Your task to perform on an android device: turn pop-ups on in chrome Image 0: 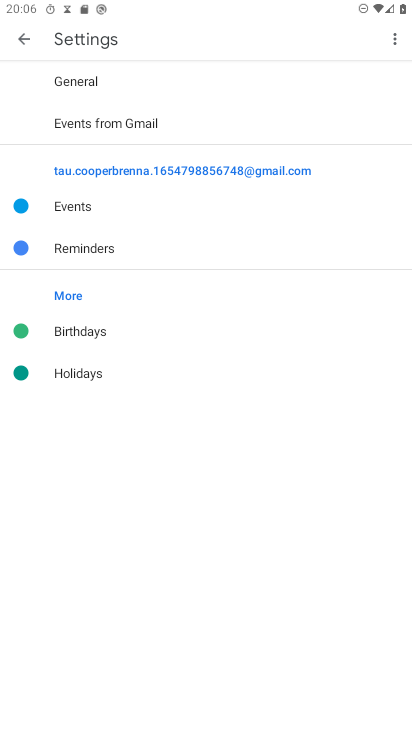
Step 0: press home button
Your task to perform on an android device: turn pop-ups on in chrome Image 1: 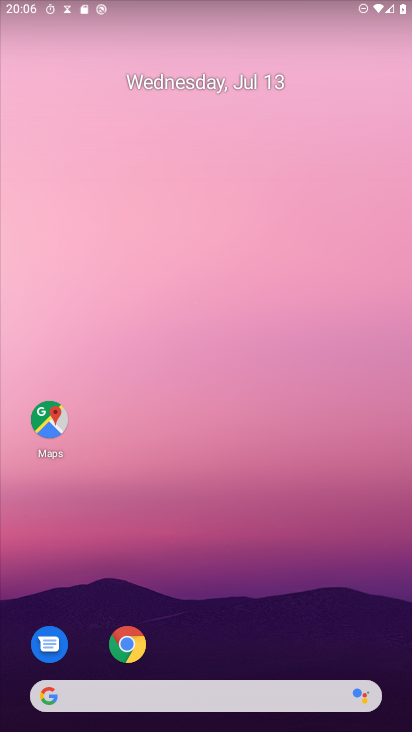
Step 1: click (117, 650)
Your task to perform on an android device: turn pop-ups on in chrome Image 2: 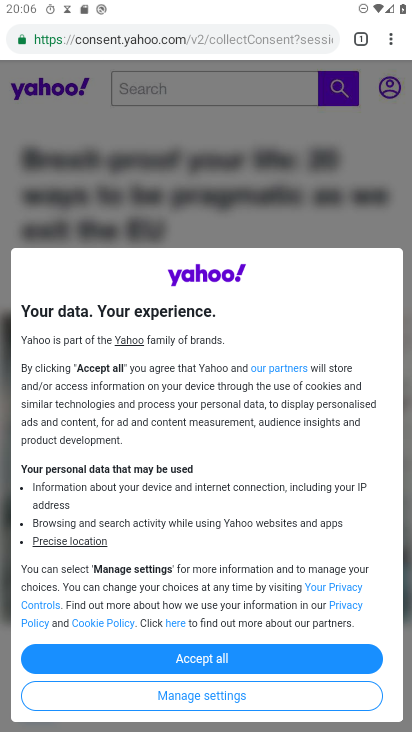
Step 2: click (382, 39)
Your task to perform on an android device: turn pop-ups on in chrome Image 3: 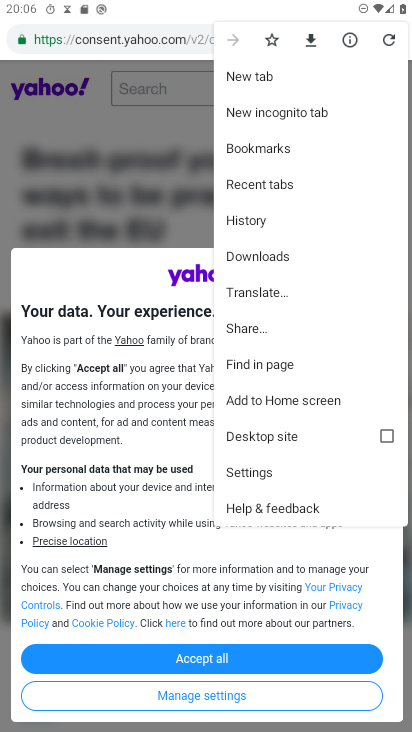
Step 3: click (281, 482)
Your task to perform on an android device: turn pop-ups on in chrome Image 4: 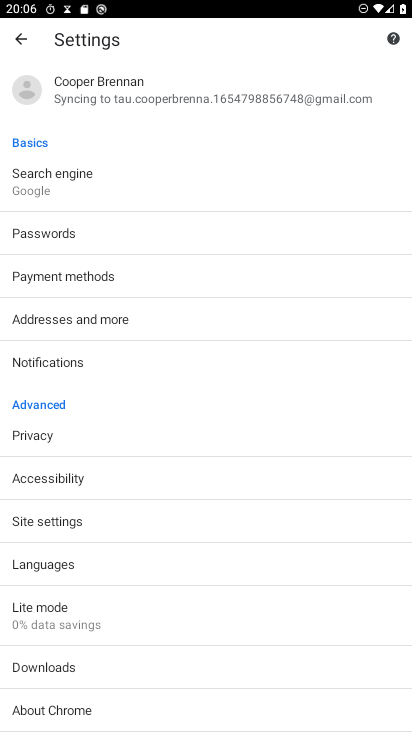
Step 4: click (117, 518)
Your task to perform on an android device: turn pop-ups on in chrome Image 5: 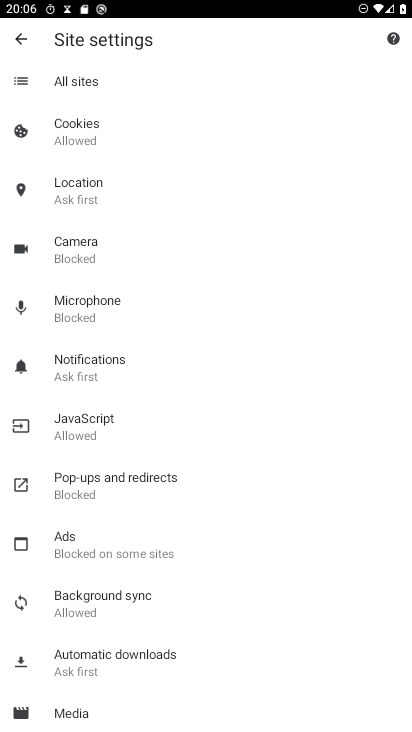
Step 5: click (157, 479)
Your task to perform on an android device: turn pop-ups on in chrome Image 6: 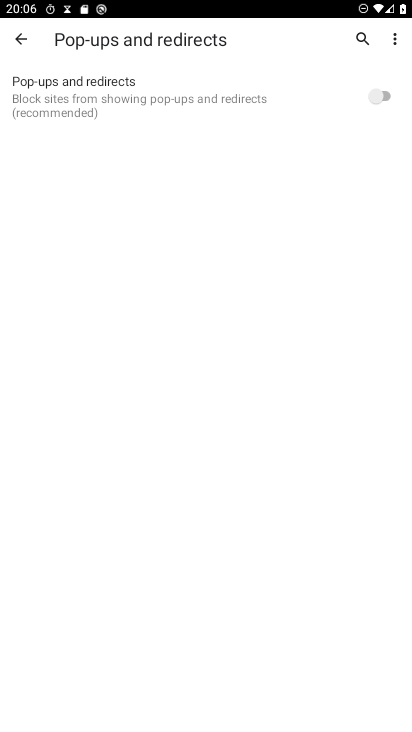
Step 6: click (365, 103)
Your task to perform on an android device: turn pop-ups on in chrome Image 7: 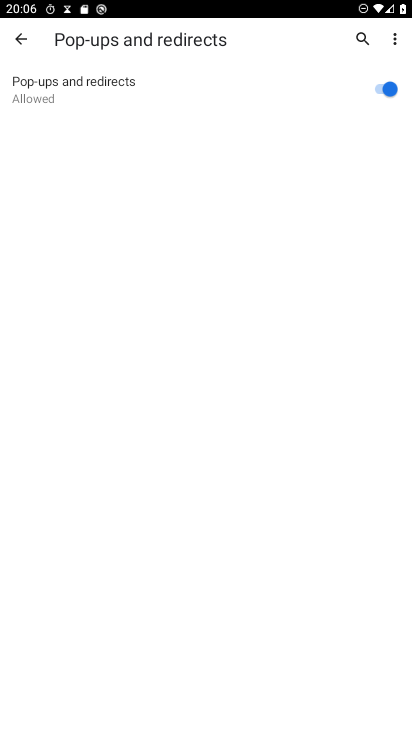
Step 7: task complete